Your task to perform on an android device: What's the weather? Image 0: 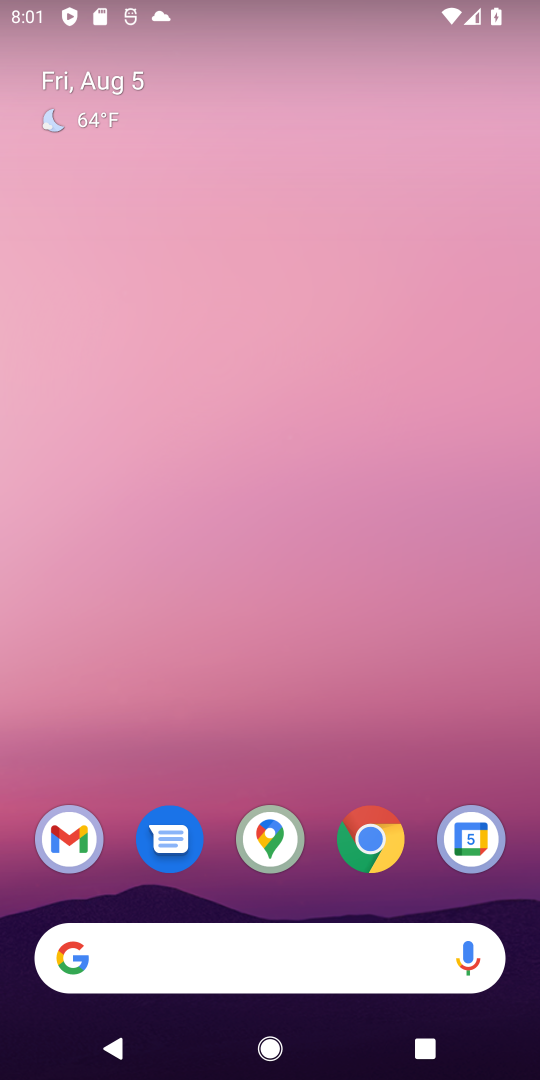
Step 0: drag from (303, 903) to (196, 168)
Your task to perform on an android device: What's the weather? Image 1: 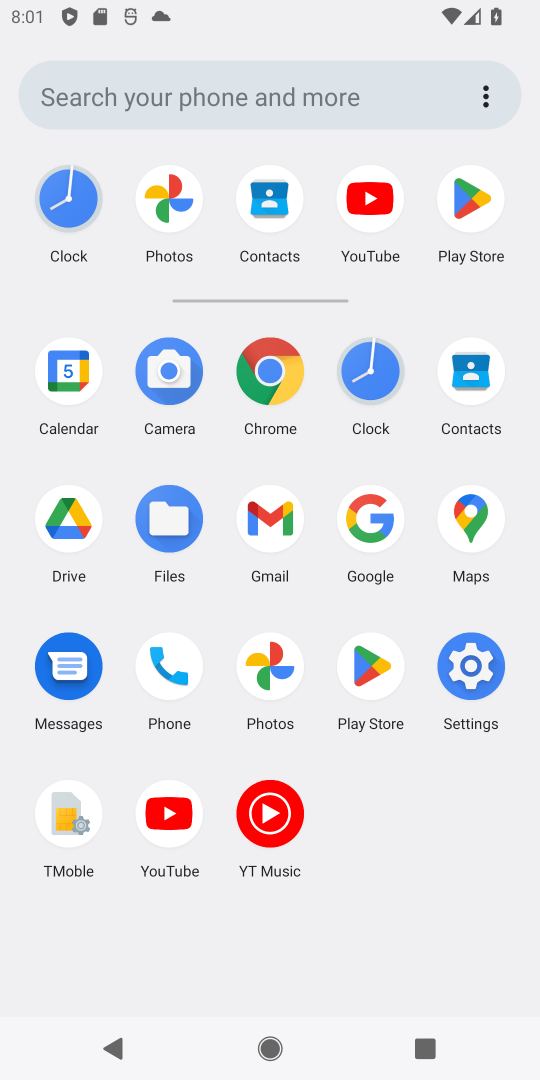
Step 1: click (372, 522)
Your task to perform on an android device: What's the weather? Image 2: 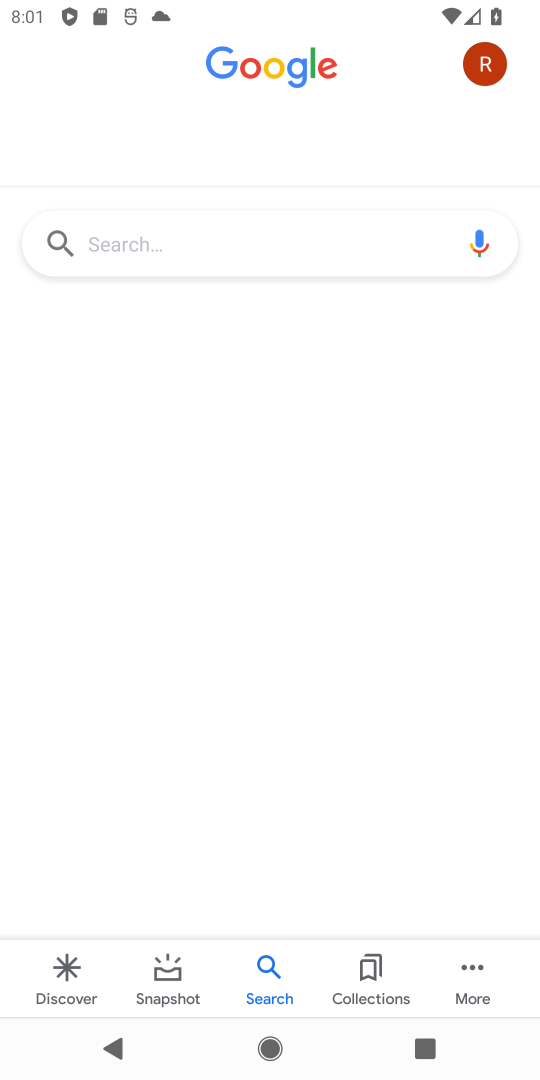
Step 2: click (296, 251)
Your task to perform on an android device: What's the weather? Image 3: 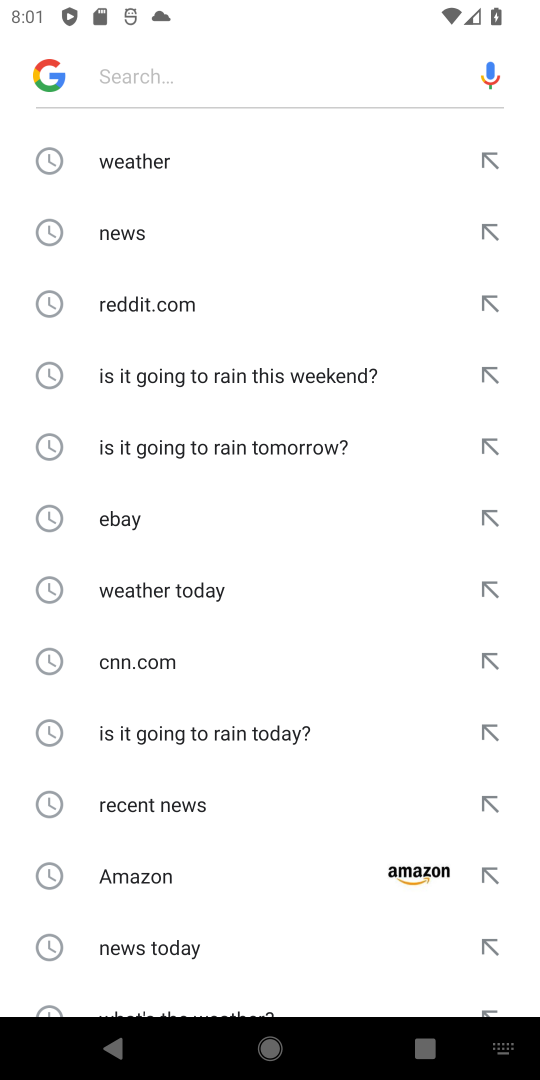
Step 3: click (136, 159)
Your task to perform on an android device: What's the weather? Image 4: 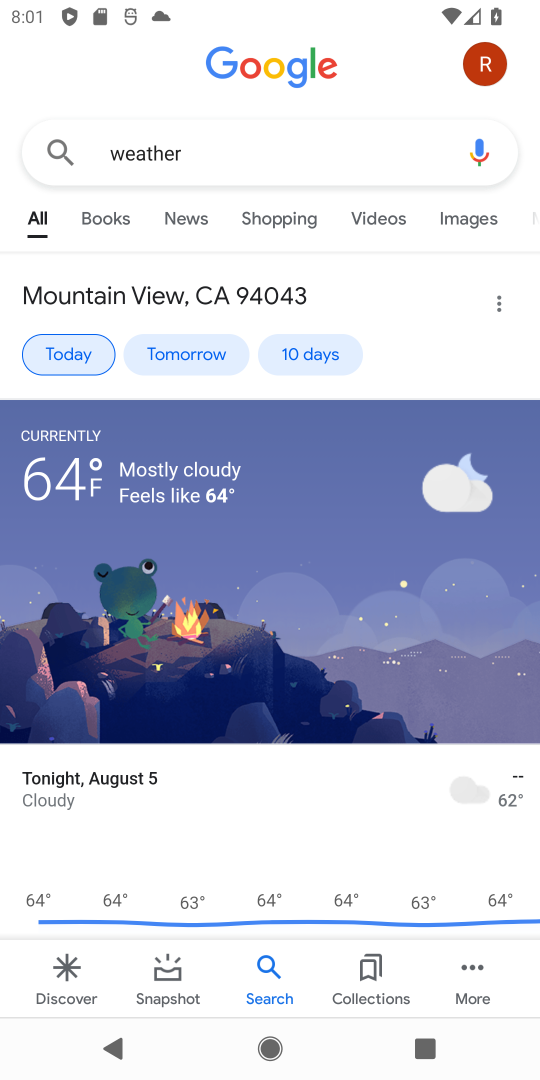
Step 4: task complete